Your task to perform on an android device: Check the news Image 0: 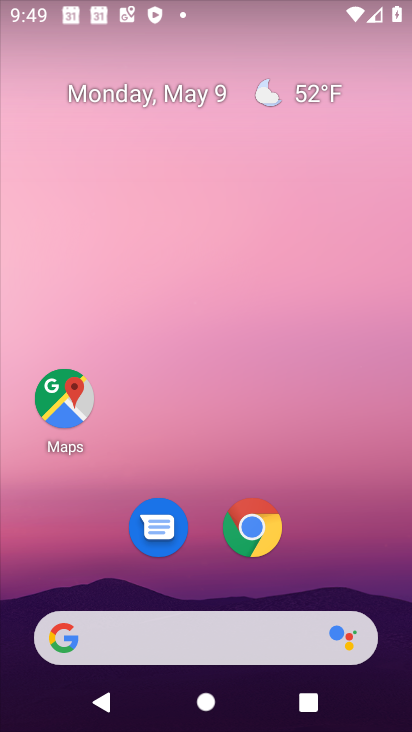
Step 0: drag from (178, 573) to (233, 89)
Your task to perform on an android device: Check the news Image 1: 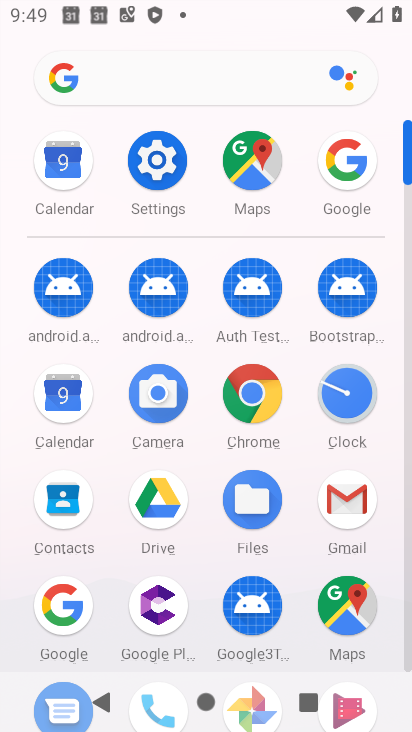
Step 1: drag from (223, 553) to (218, 509)
Your task to perform on an android device: Check the news Image 2: 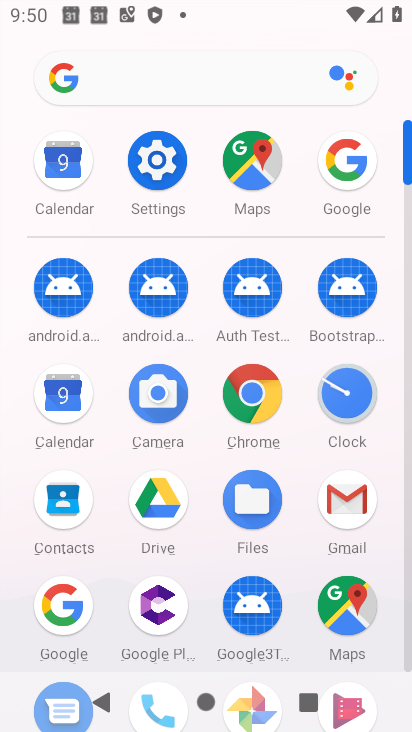
Step 2: click (342, 172)
Your task to perform on an android device: Check the news Image 3: 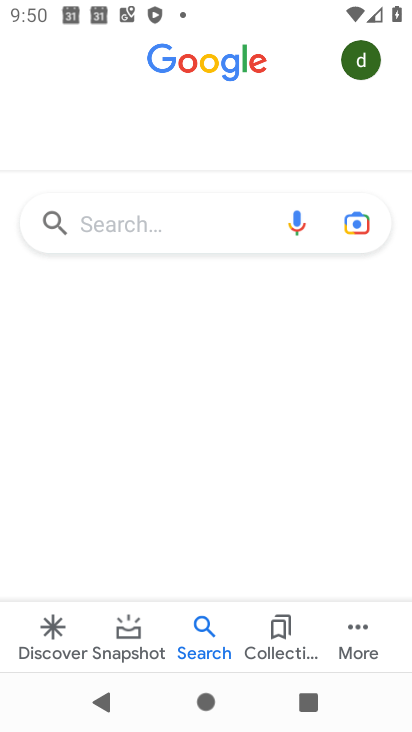
Step 3: click (178, 214)
Your task to perform on an android device: Check the news Image 4: 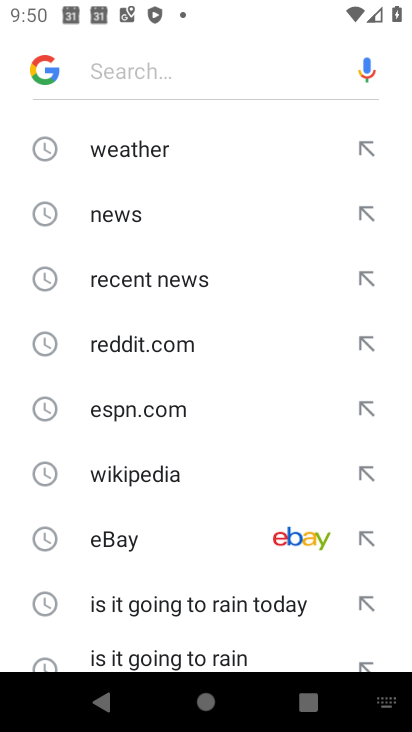
Step 4: click (179, 216)
Your task to perform on an android device: Check the news Image 5: 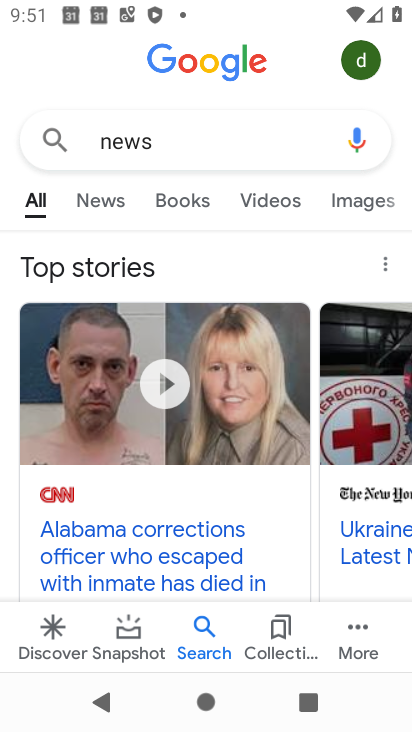
Step 5: task complete